Your task to perform on an android device: Search for seafood restaurants on Google Maps Image 0: 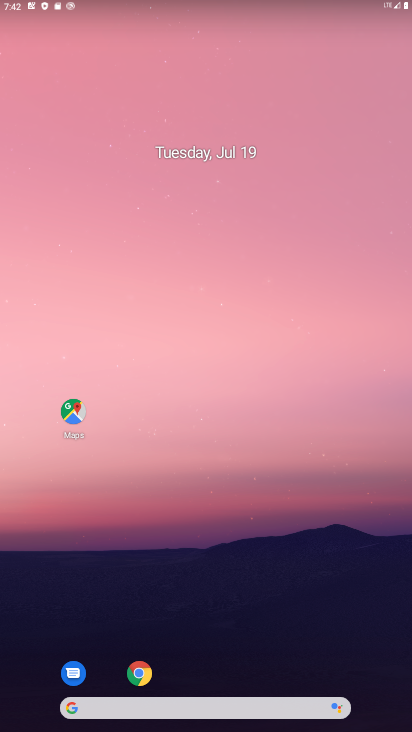
Step 0: drag from (371, 686) to (246, 2)
Your task to perform on an android device: Search for seafood restaurants on Google Maps Image 1: 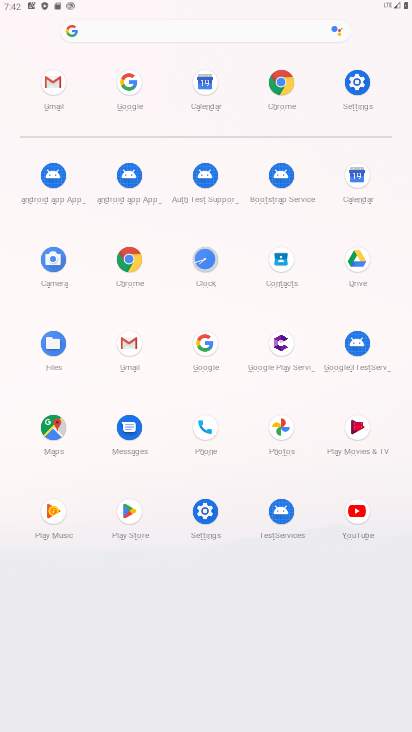
Step 1: click (60, 421)
Your task to perform on an android device: Search for seafood restaurants on Google Maps Image 2: 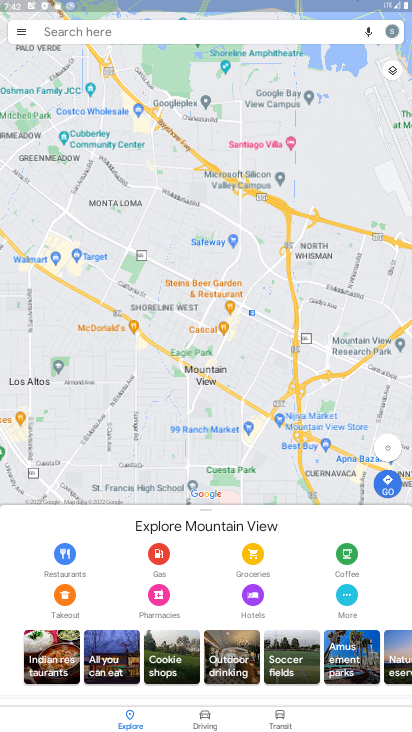
Step 2: click (97, 30)
Your task to perform on an android device: Search for seafood restaurants on Google Maps Image 3: 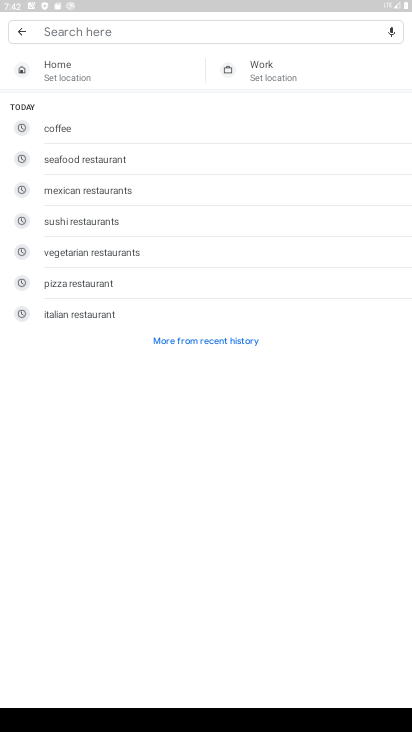
Step 3: click (91, 158)
Your task to perform on an android device: Search for seafood restaurants on Google Maps Image 4: 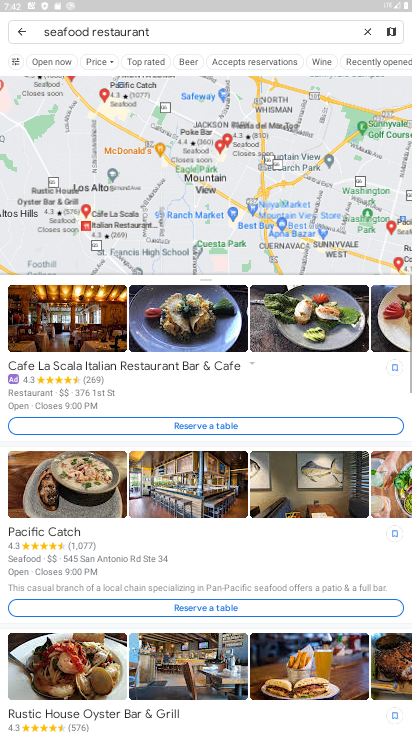
Step 4: task complete